Your task to perform on an android device: change the clock style Image 0: 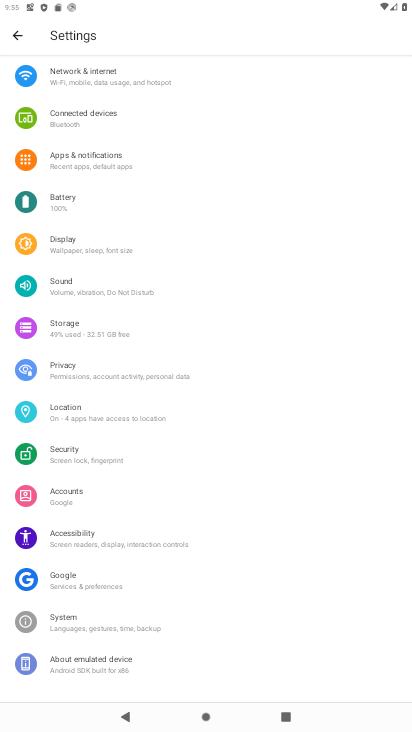
Step 0: press home button
Your task to perform on an android device: change the clock style Image 1: 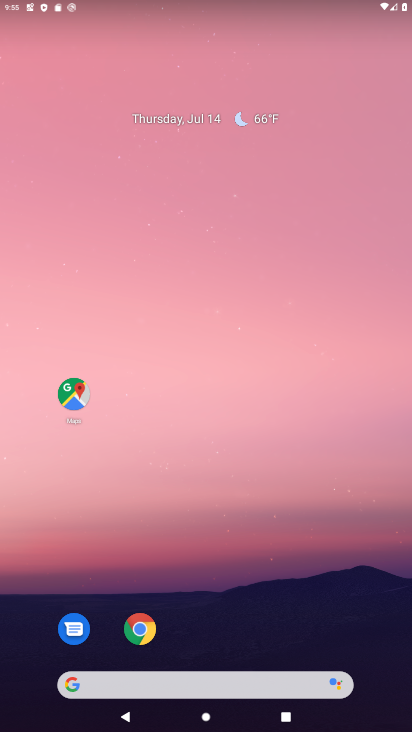
Step 1: drag from (308, 567) to (255, 23)
Your task to perform on an android device: change the clock style Image 2: 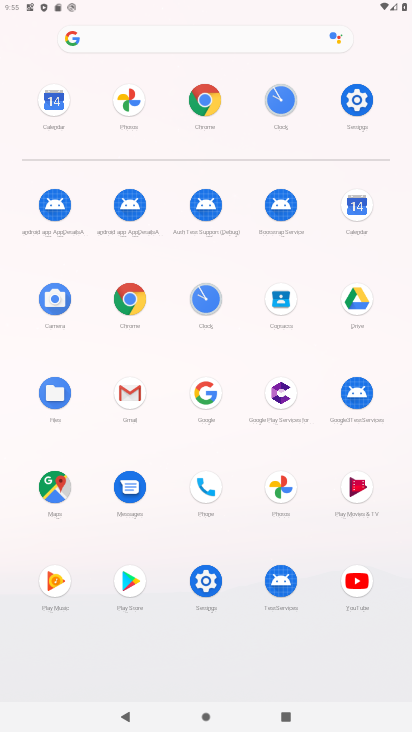
Step 2: click (201, 299)
Your task to perform on an android device: change the clock style Image 3: 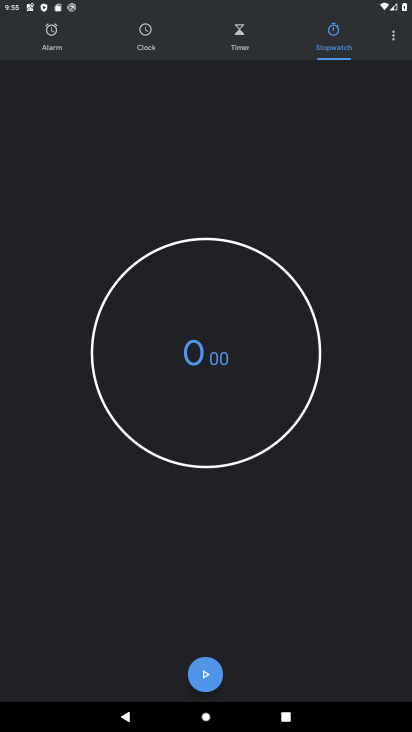
Step 3: click (393, 44)
Your task to perform on an android device: change the clock style Image 4: 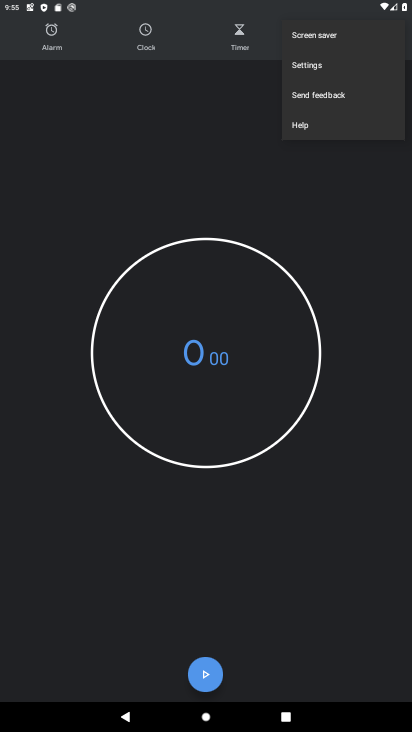
Step 4: click (306, 64)
Your task to perform on an android device: change the clock style Image 5: 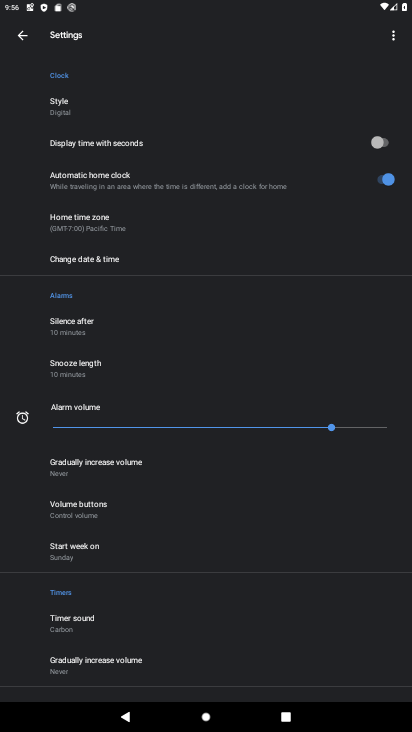
Step 5: click (62, 111)
Your task to perform on an android device: change the clock style Image 6: 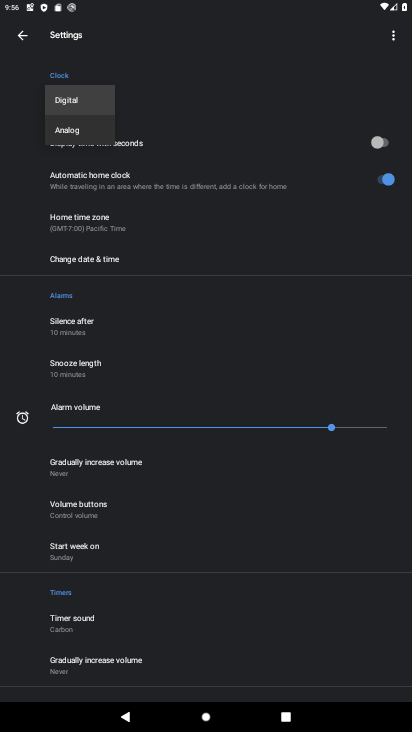
Step 6: click (73, 131)
Your task to perform on an android device: change the clock style Image 7: 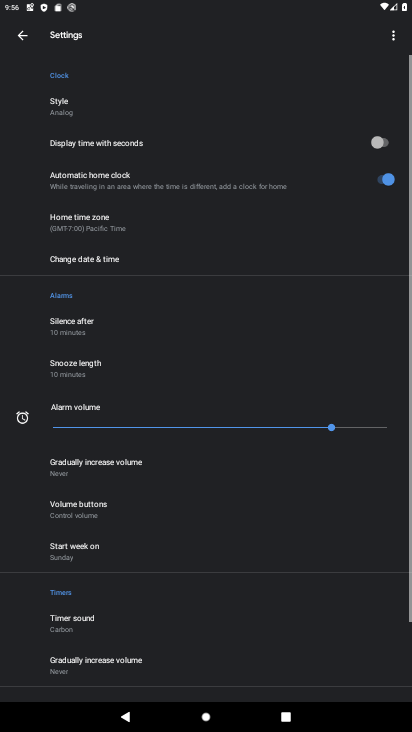
Step 7: task complete